Your task to perform on an android device: Open the map Image 0: 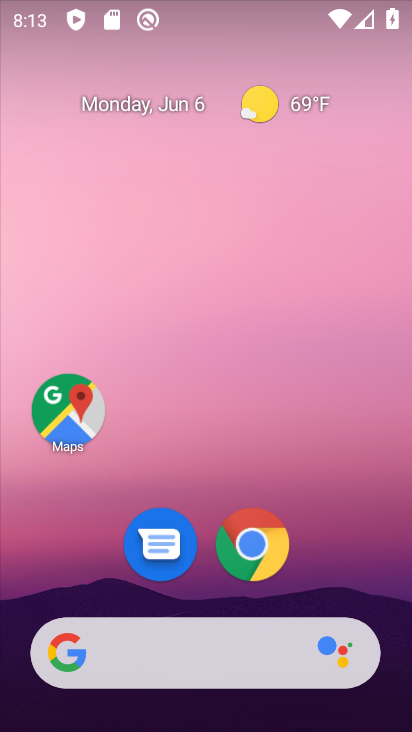
Step 0: drag from (201, 579) to (241, 233)
Your task to perform on an android device: Open the map Image 1: 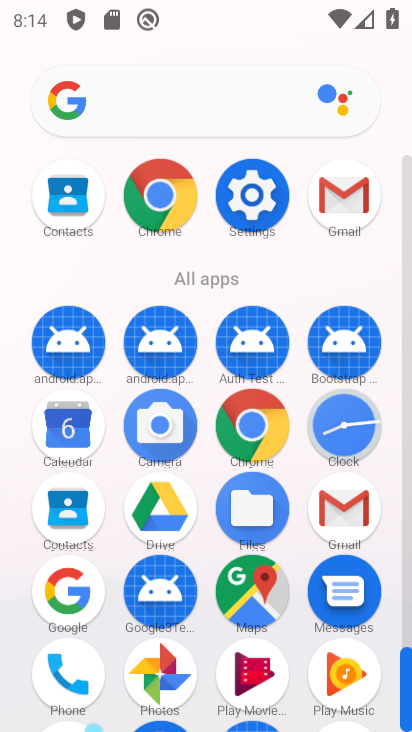
Step 1: drag from (210, 554) to (237, 369)
Your task to perform on an android device: Open the map Image 2: 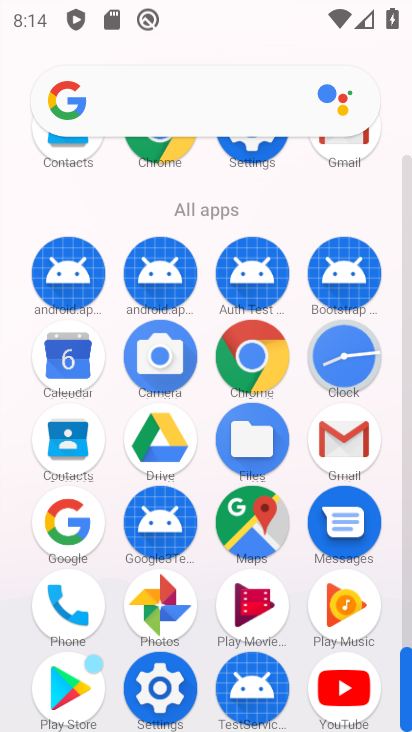
Step 2: drag from (303, 592) to (352, 309)
Your task to perform on an android device: Open the map Image 3: 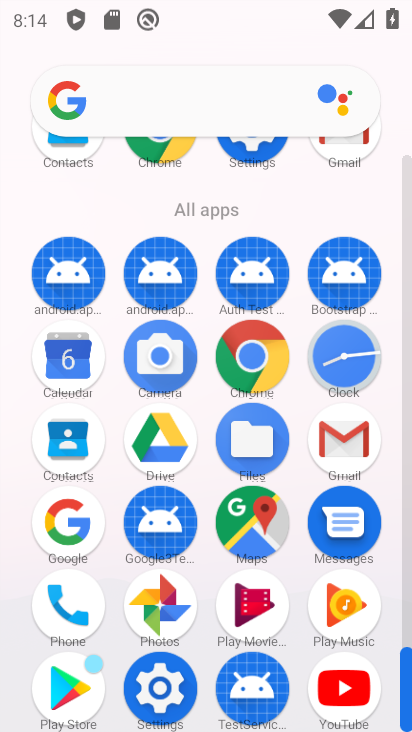
Step 3: click (244, 519)
Your task to perform on an android device: Open the map Image 4: 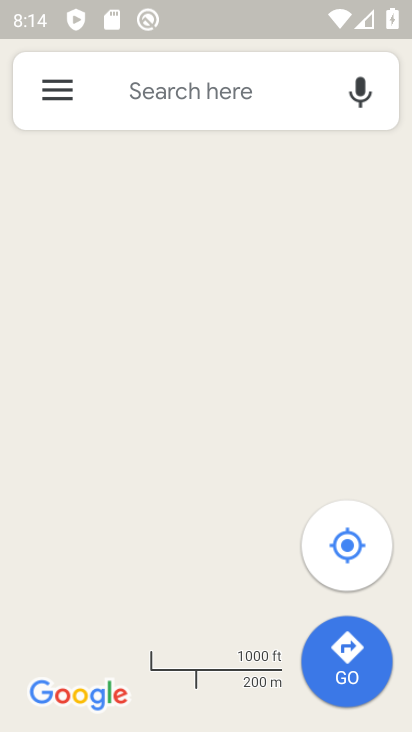
Step 4: task complete